Your task to perform on an android device: Check the weather Image 0: 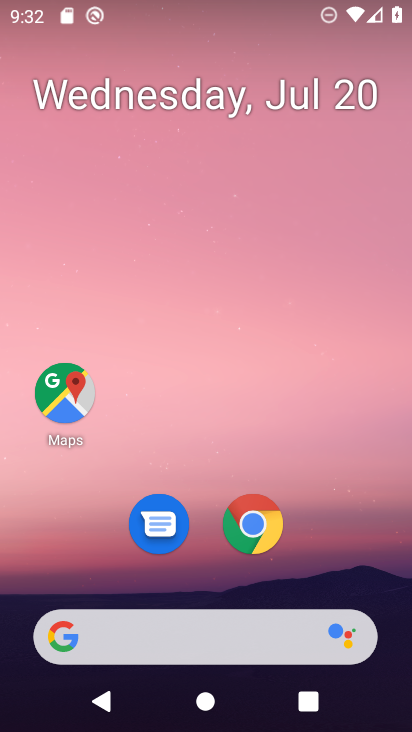
Step 0: press home button
Your task to perform on an android device: Check the weather Image 1: 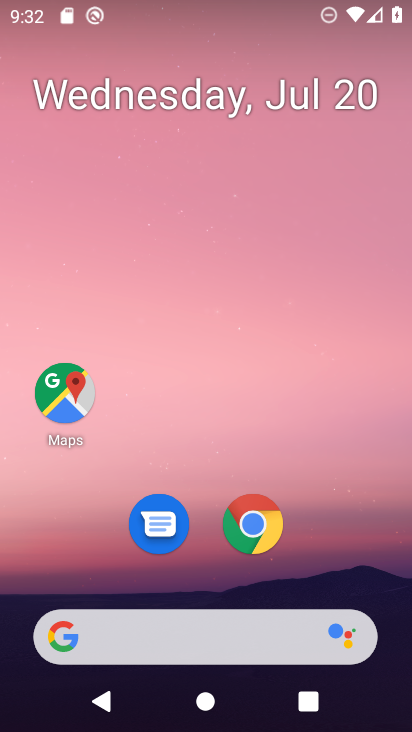
Step 1: click (171, 636)
Your task to perform on an android device: Check the weather Image 2: 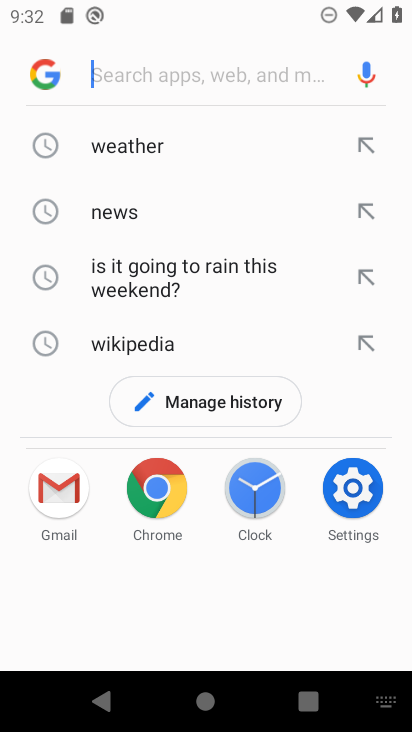
Step 2: click (119, 133)
Your task to perform on an android device: Check the weather Image 3: 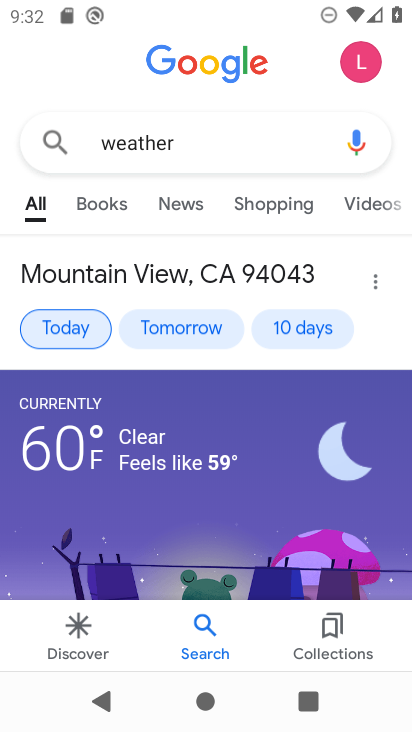
Step 3: task complete